Your task to perform on an android device: What's the weather today? Image 0: 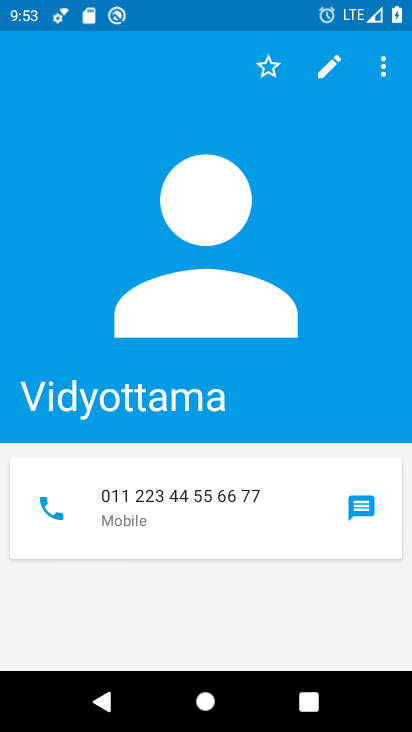
Step 0: press home button
Your task to perform on an android device: What's the weather today? Image 1: 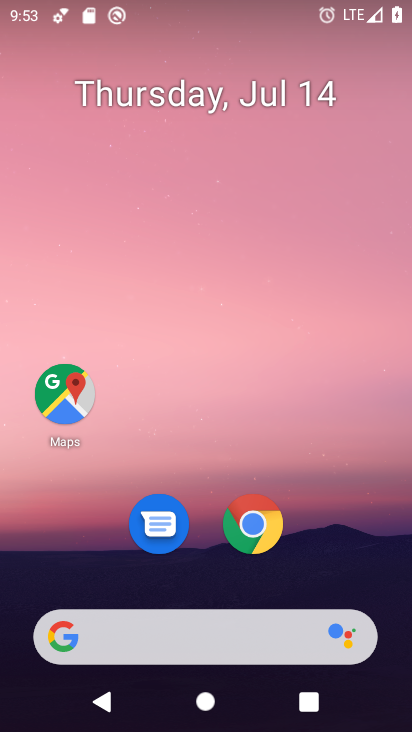
Step 1: click (225, 634)
Your task to perform on an android device: What's the weather today? Image 2: 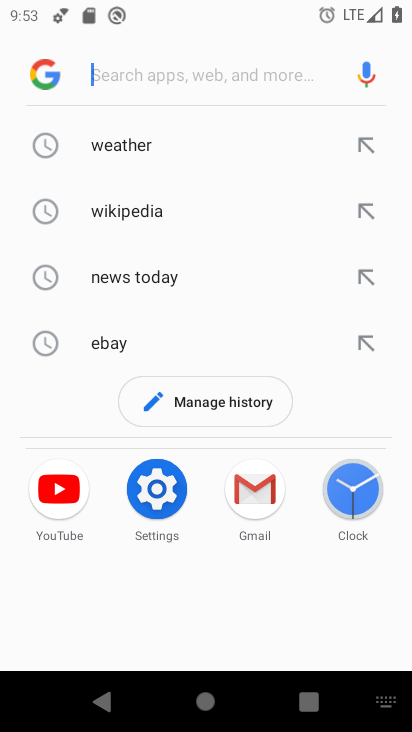
Step 2: click (128, 144)
Your task to perform on an android device: What's the weather today? Image 3: 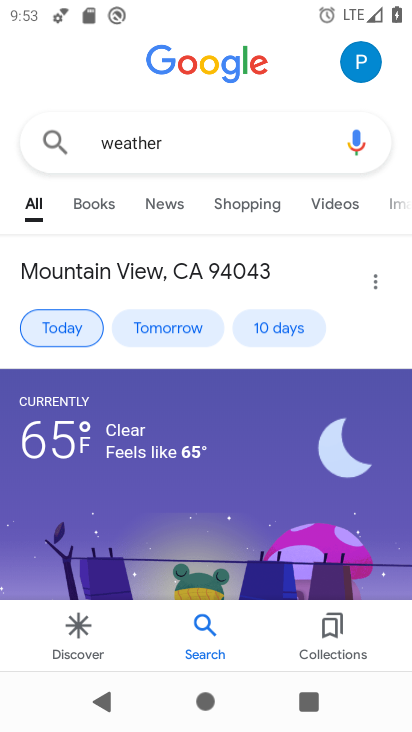
Step 3: click (80, 320)
Your task to perform on an android device: What's the weather today? Image 4: 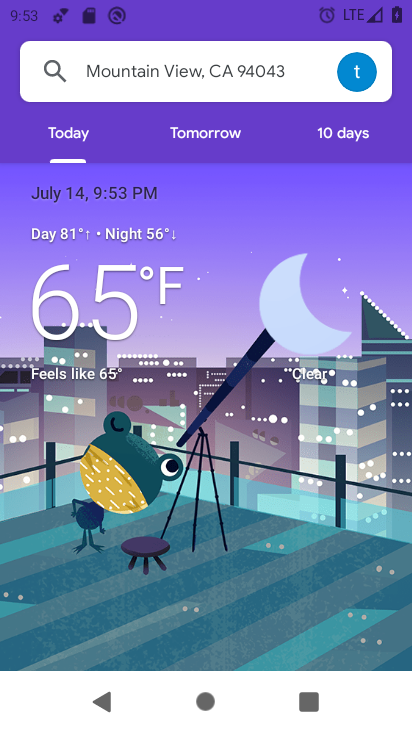
Step 4: task complete